Your task to perform on an android device: Open display settings Image 0: 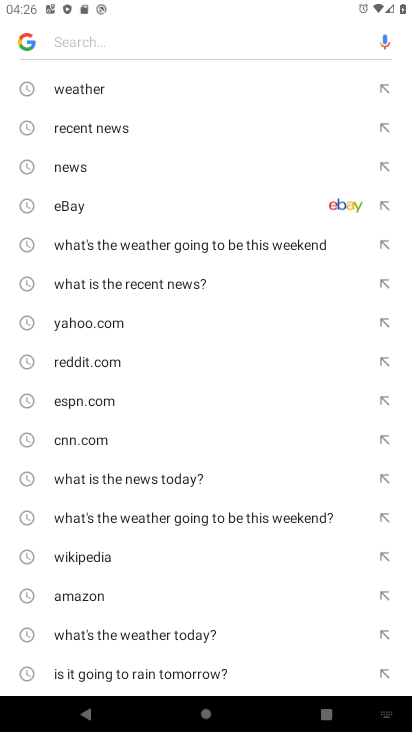
Step 0: press home button
Your task to perform on an android device: Open display settings Image 1: 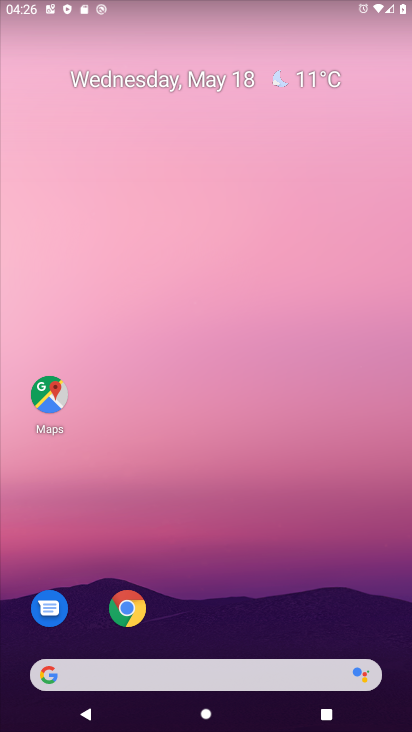
Step 1: drag from (238, 639) to (246, 203)
Your task to perform on an android device: Open display settings Image 2: 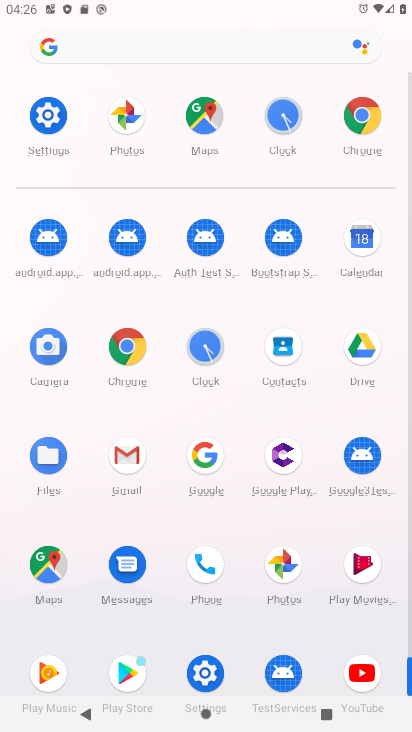
Step 2: click (53, 103)
Your task to perform on an android device: Open display settings Image 3: 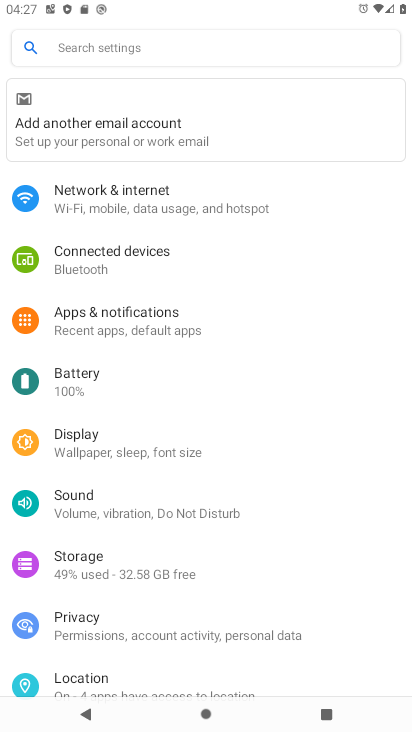
Step 3: click (131, 446)
Your task to perform on an android device: Open display settings Image 4: 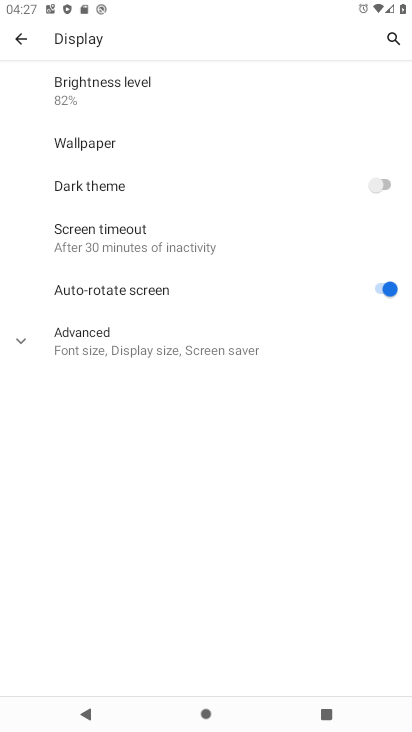
Step 4: task complete